Your task to perform on an android device: change the clock display to analog Image 0: 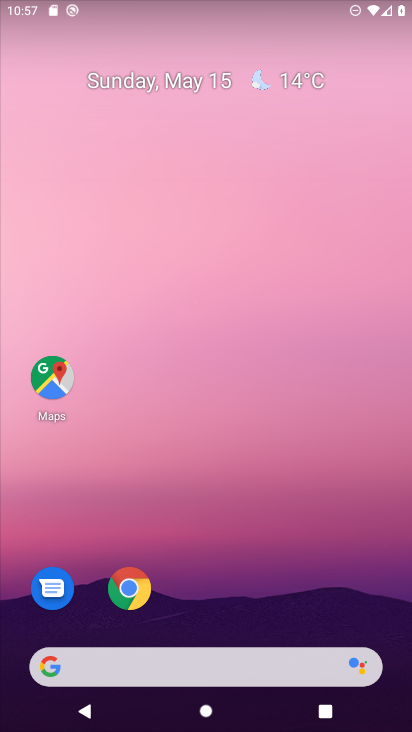
Step 0: drag from (208, 569) to (246, 271)
Your task to perform on an android device: change the clock display to analog Image 1: 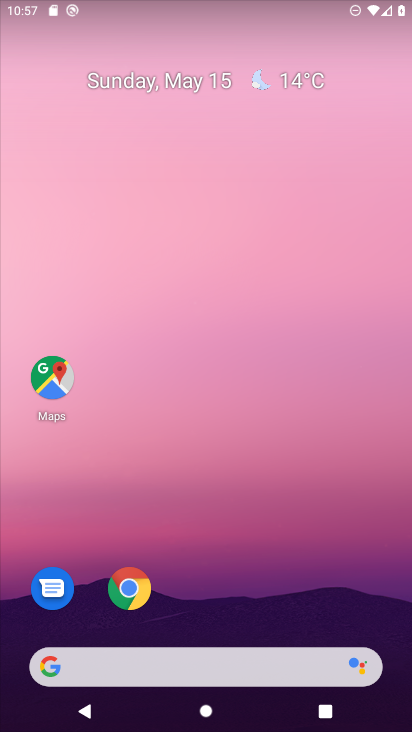
Step 1: drag from (247, 635) to (349, 8)
Your task to perform on an android device: change the clock display to analog Image 2: 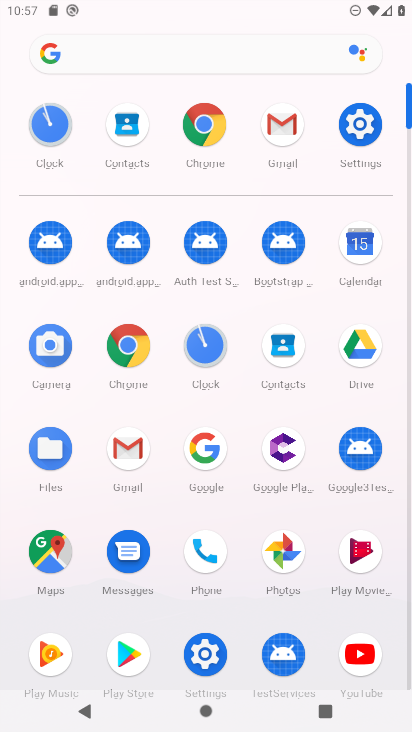
Step 2: click (360, 133)
Your task to perform on an android device: change the clock display to analog Image 3: 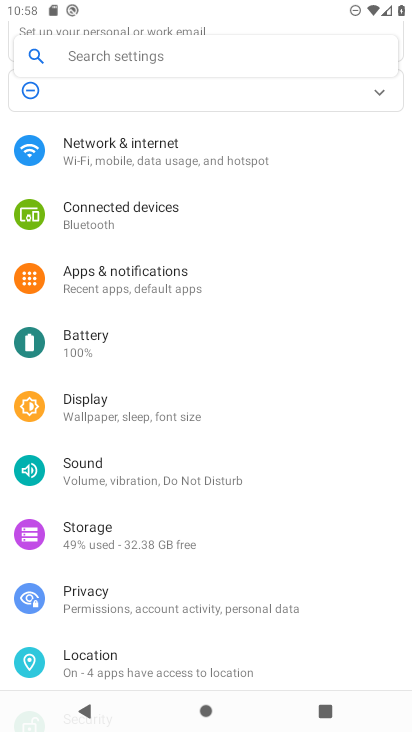
Step 3: drag from (147, 611) to (200, 324)
Your task to perform on an android device: change the clock display to analog Image 4: 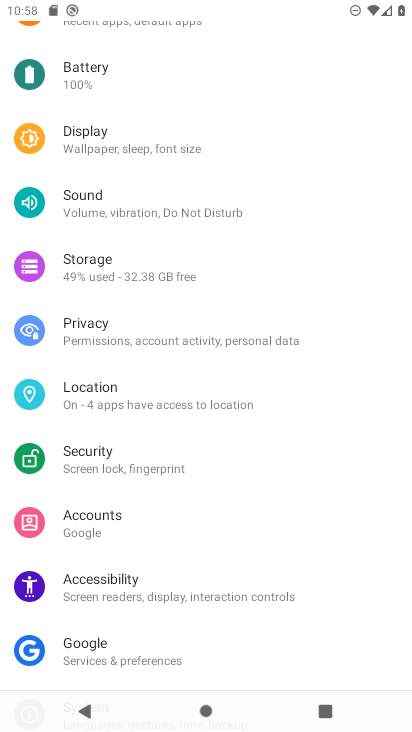
Step 4: drag from (159, 501) to (199, 308)
Your task to perform on an android device: change the clock display to analog Image 5: 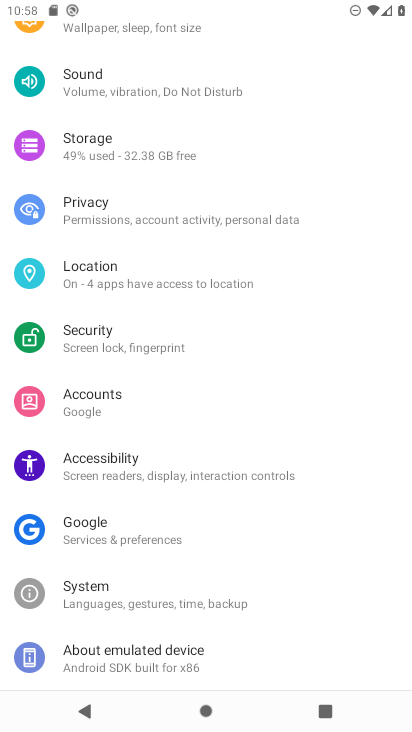
Step 5: click (91, 599)
Your task to perform on an android device: change the clock display to analog Image 6: 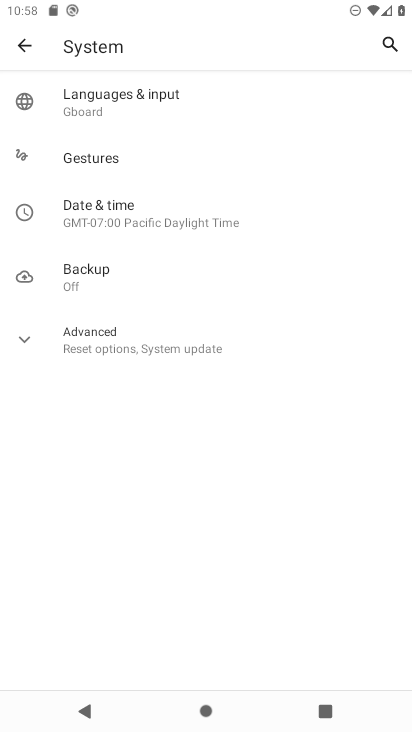
Step 6: click (124, 218)
Your task to perform on an android device: change the clock display to analog Image 7: 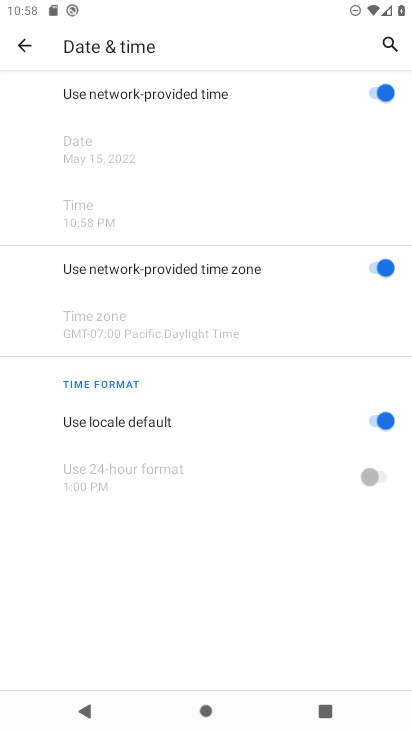
Step 7: click (41, 48)
Your task to perform on an android device: change the clock display to analog Image 8: 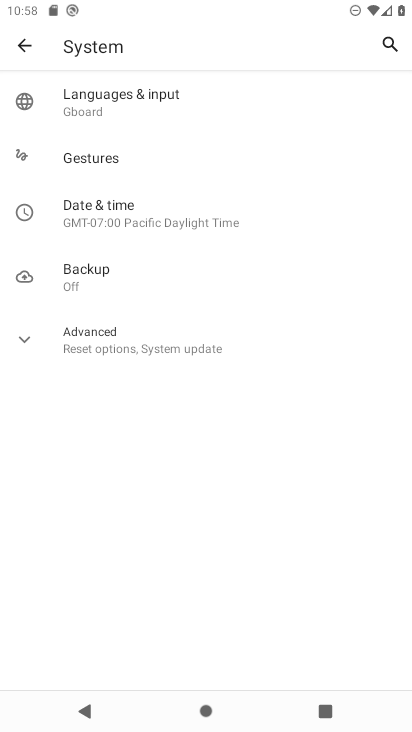
Step 8: click (31, 49)
Your task to perform on an android device: change the clock display to analog Image 9: 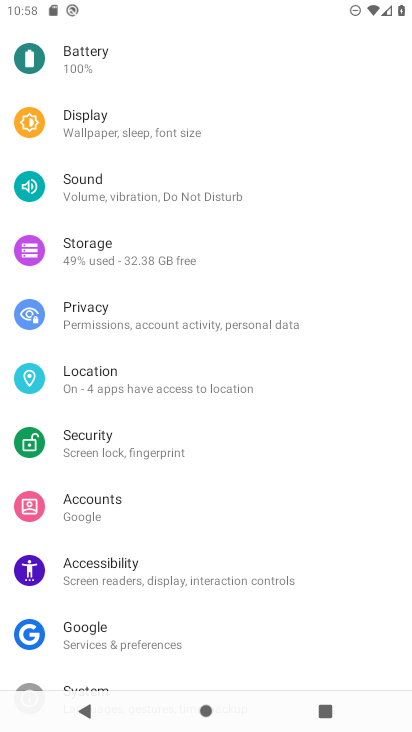
Step 9: click (130, 129)
Your task to perform on an android device: change the clock display to analog Image 10: 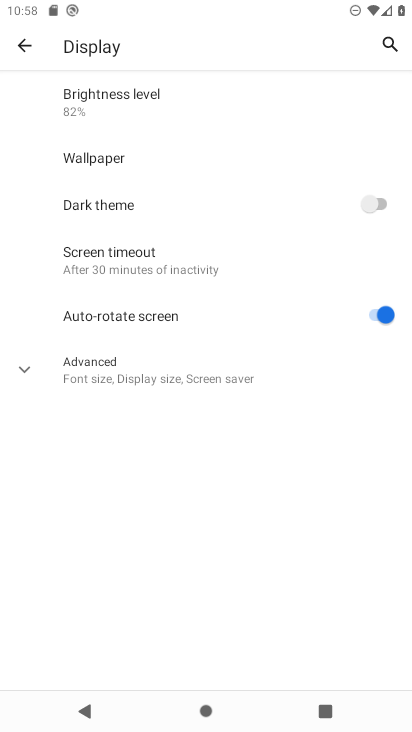
Step 10: click (96, 367)
Your task to perform on an android device: change the clock display to analog Image 11: 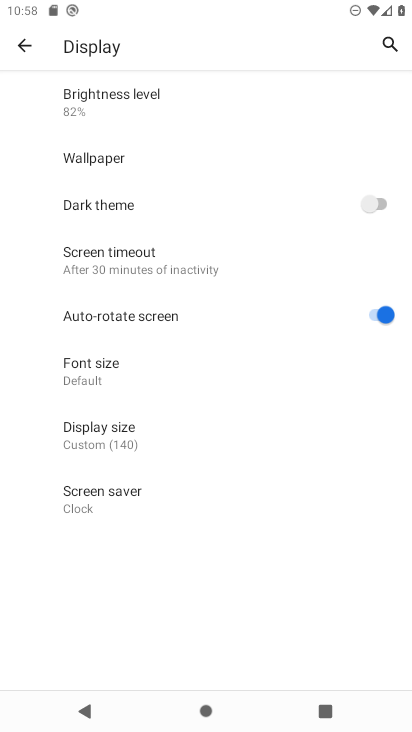
Step 11: click (124, 498)
Your task to perform on an android device: change the clock display to analog Image 12: 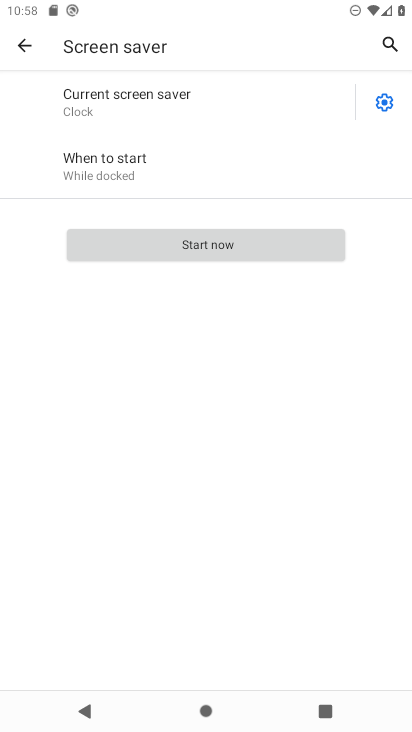
Step 12: click (386, 101)
Your task to perform on an android device: change the clock display to analog Image 13: 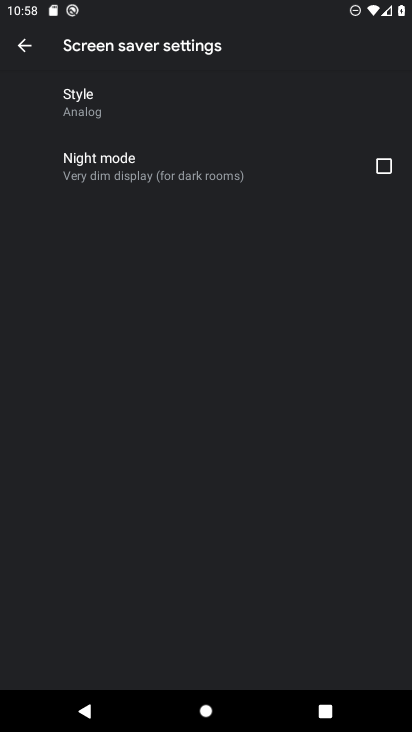
Step 13: click (110, 108)
Your task to perform on an android device: change the clock display to analog Image 14: 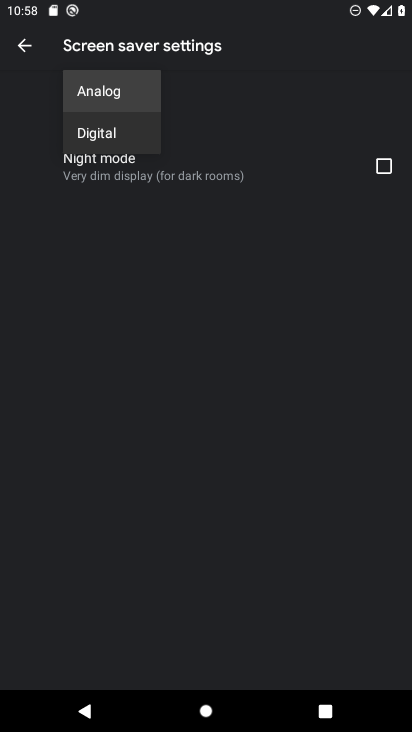
Step 14: click (120, 136)
Your task to perform on an android device: change the clock display to analog Image 15: 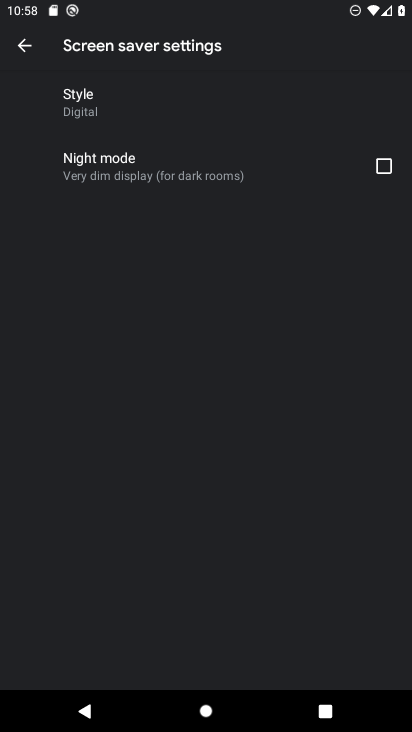
Step 15: task complete